Your task to perform on an android device: manage bookmarks in the chrome app Image 0: 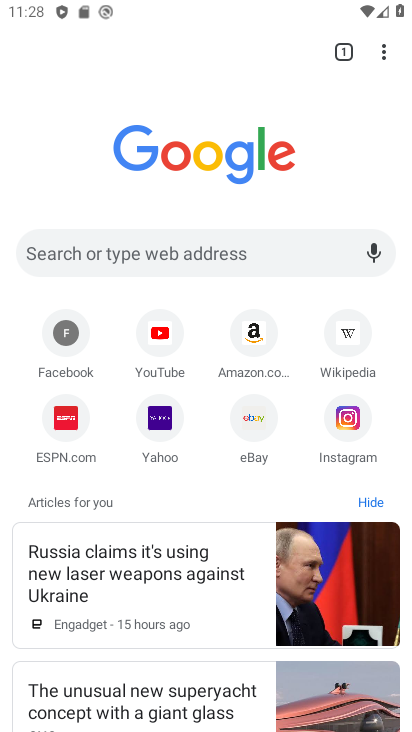
Step 0: press home button
Your task to perform on an android device: manage bookmarks in the chrome app Image 1: 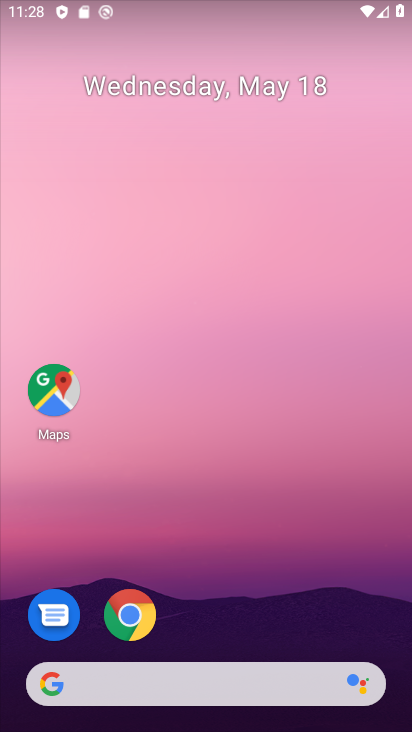
Step 1: drag from (28, 462) to (201, 140)
Your task to perform on an android device: manage bookmarks in the chrome app Image 2: 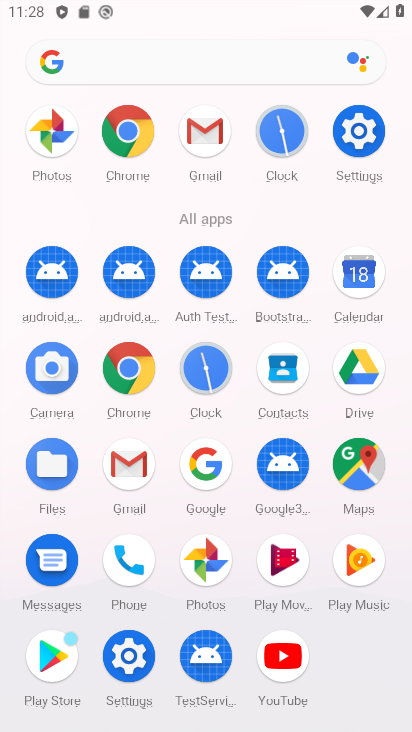
Step 2: click (121, 139)
Your task to perform on an android device: manage bookmarks in the chrome app Image 3: 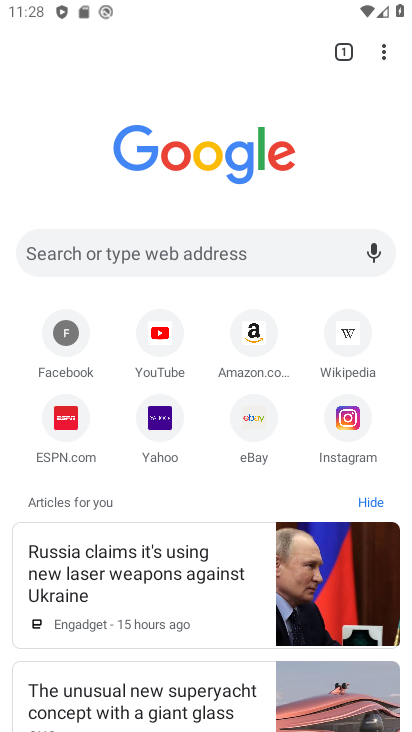
Step 3: click (379, 48)
Your task to perform on an android device: manage bookmarks in the chrome app Image 4: 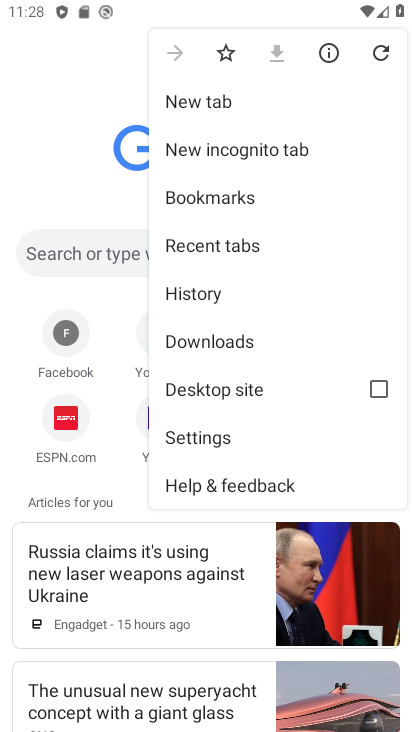
Step 4: click (188, 212)
Your task to perform on an android device: manage bookmarks in the chrome app Image 5: 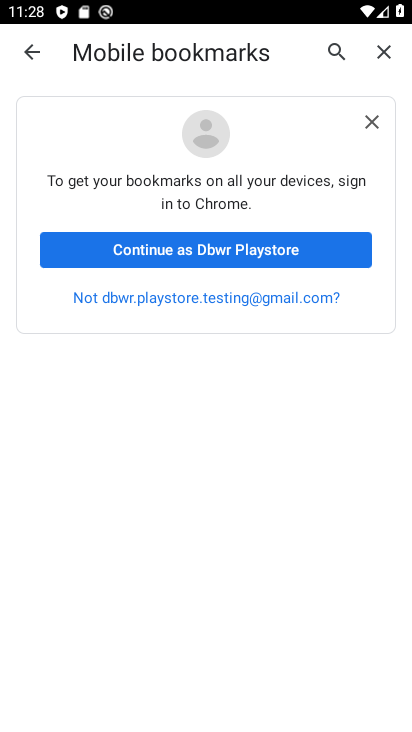
Step 5: click (373, 119)
Your task to perform on an android device: manage bookmarks in the chrome app Image 6: 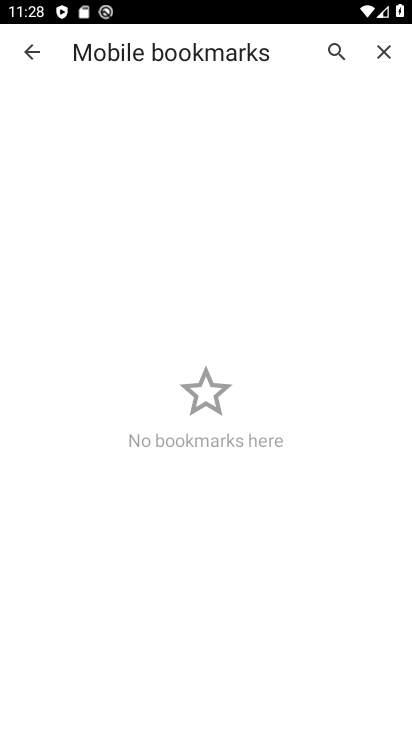
Step 6: task complete